Your task to perform on an android device: Open the calendar app, open the side menu, and click the "Day" option Image 0: 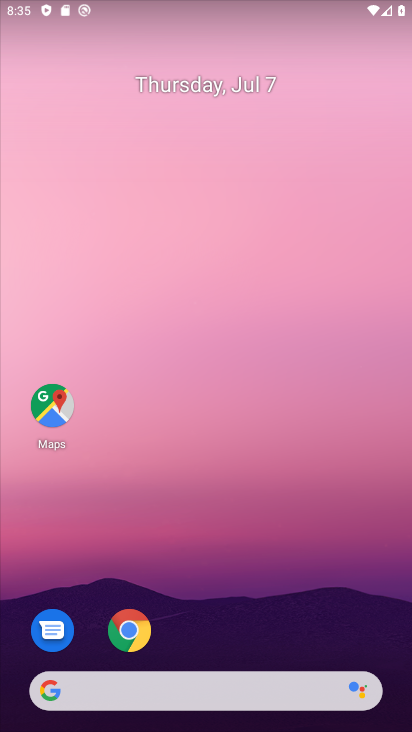
Step 0: drag from (195, 633) to (198, 170)
Your task to perform on an android device: Open the calendar app, open the side menu, and click the "Day" option Image 1: 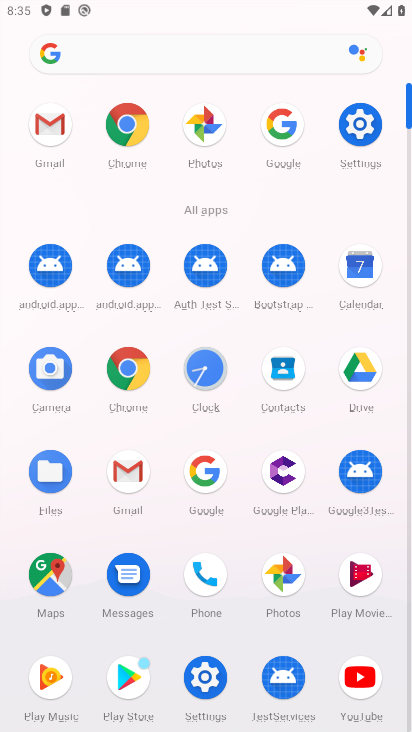
Step 1: click (348, 279)
Your task to perform on an android device: Open the calendar app, open the side menu, and click the "Day" option Image 2: 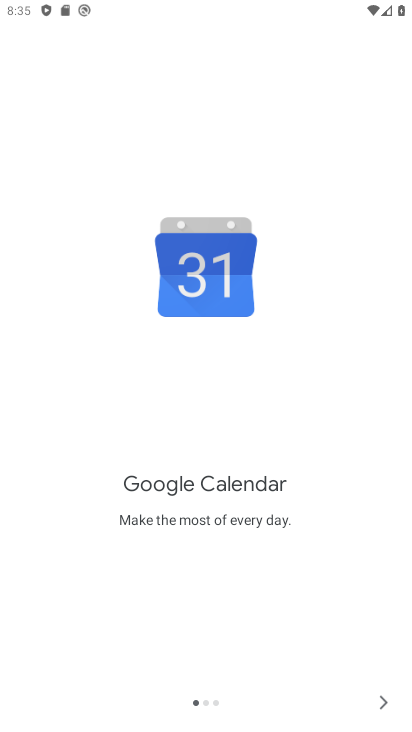
Step 2: click (380, 702)
Your task to perform on an android device: Open the calendar app, open the side menu, and click the "Day" option Image 3: 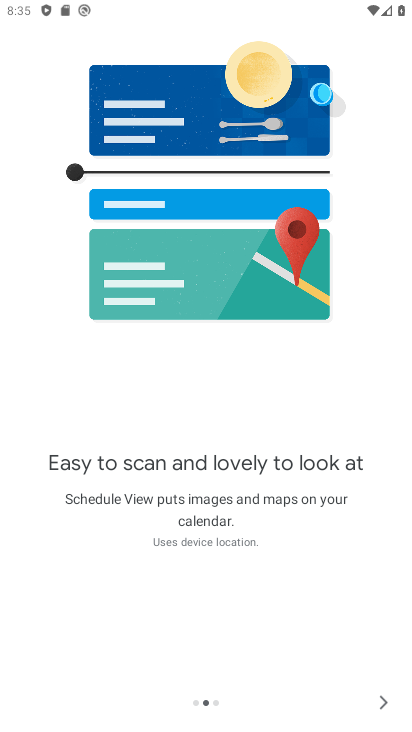
Step 3: click (380, 702)
Your task to perform on an android device: Open the calendar app, open the side menu, and click the "Day" option Image 4: 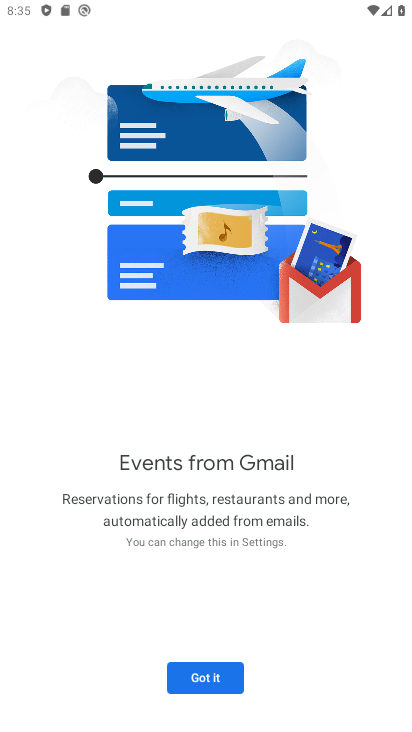
Step 4: click (201, 682)
Your task to perform on an android device: Open the calendar app, open the side menu, and click the "Day" option Image 5: 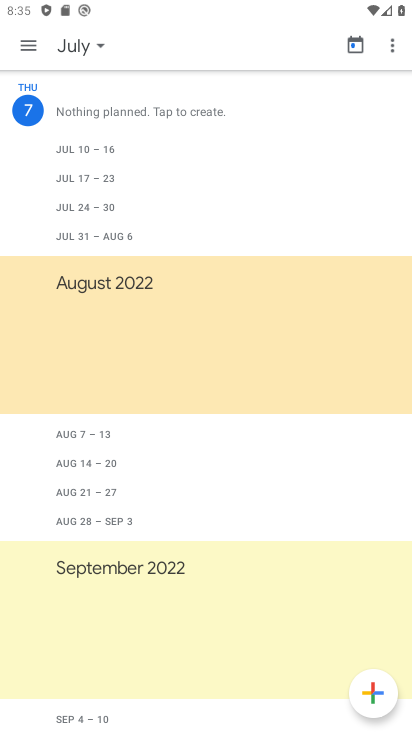
Step 5: click (18, 51)
Your task to perform on an android device: Open the calendar app, open the side menu, and click the "Day" option Image 6: 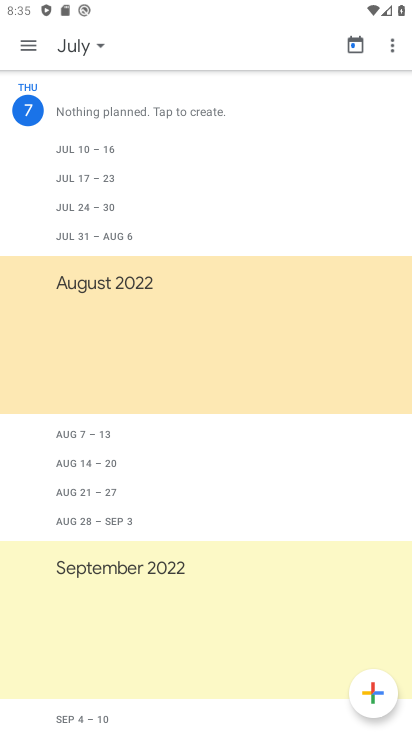
Step 6: click (22, 46)
Your task to perform on an android device: Open the calendar app, open the side menu, and click the "Day" option Image 7: 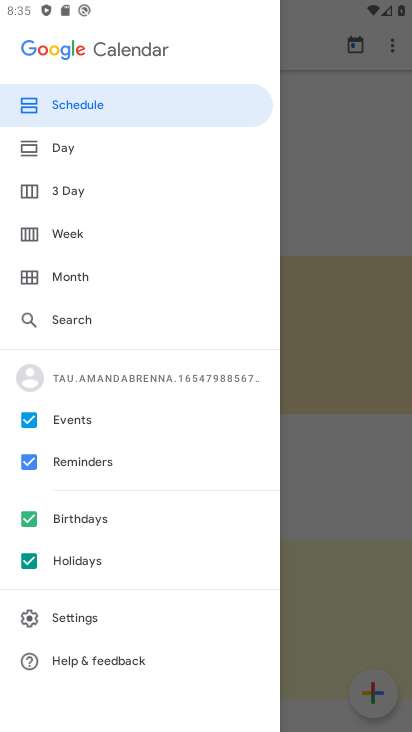
Step 7: click (80, 146)
Your task to perform on an android device: Open the calendar app, open the side menu, and click the "Day" option Image 8: 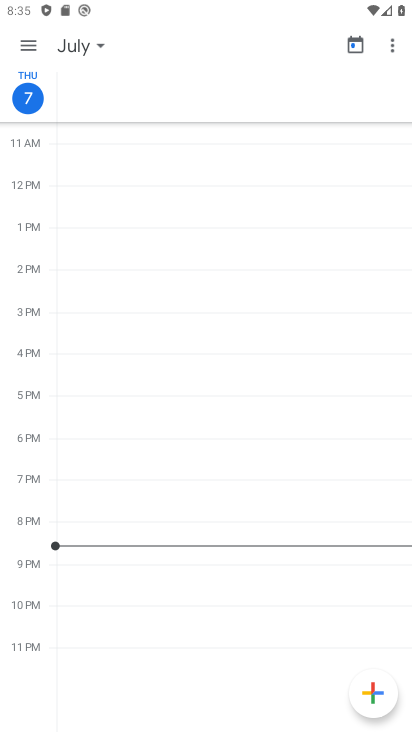
Step 8: task complete